Your task to perform on an android device: Go to Android settings Image 0: 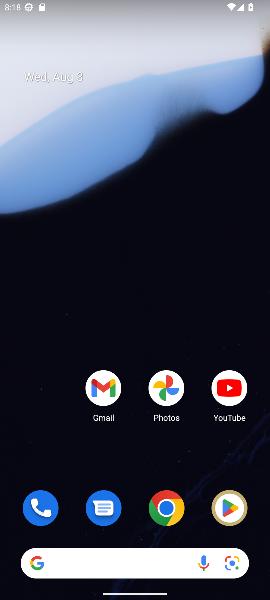
Step 0: drag from (141, 541) to (89, 42)
Your task to perform on an android device: Go to Android settings Image 1: 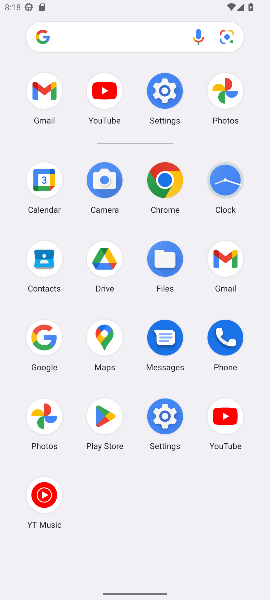
Step 1: click (163, 423)
Your task to perform on an android device: Go to Android settings Image 2: 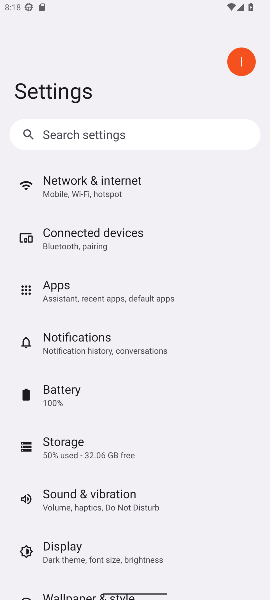
Step 2: task complete